Your task to perform on an android device: turn on javascript in the chrome app Image 0: 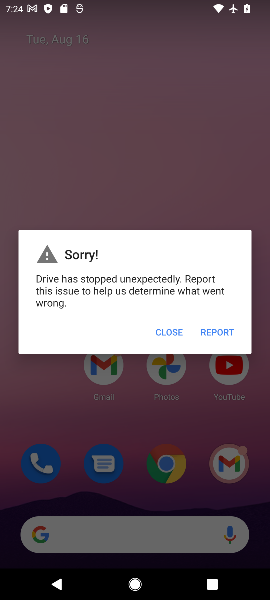
Step 0: click (168, 326)
Your task to perform on an android device: turn on javascript in the chrome app Image 1: 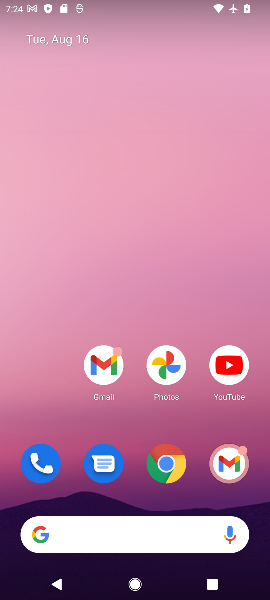
Step 1: drag from (107, 512) to (105, 12)
Your task to perform on an android device: turn on javascript in the chrome app Image 2: 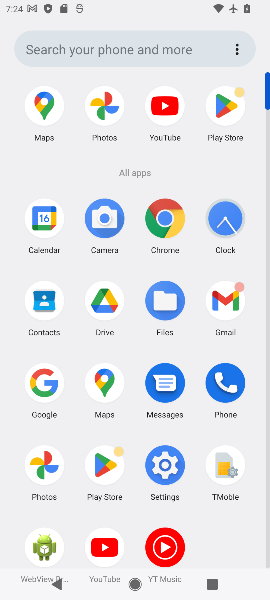
Step 2: click (160, 223)
Your task to perform on an android device: turn on javascript in the chrome app Image 3: 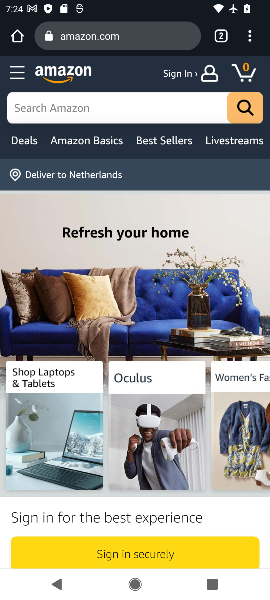
Step 3: click (250, 31)
Your task to perform on an android device: turn on javascript in the chrome app Image 4: 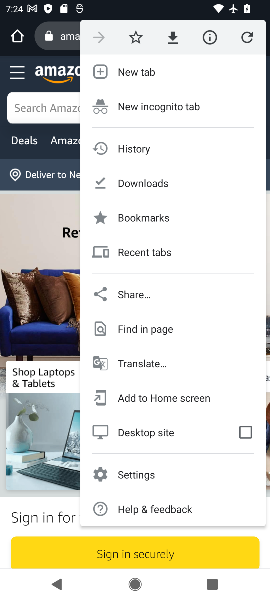
Step 4: click (137, 486)
Your task to perform on an android device: turn on javascript in the chrome app Image 5: 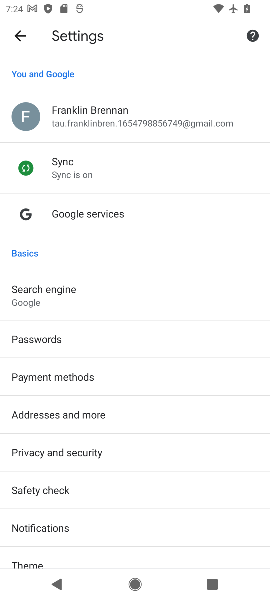
Step 5: drag from (69, 494) to (72, 226)
Your task to perform on an android device: turn on javascript in the chrome app Image 6: 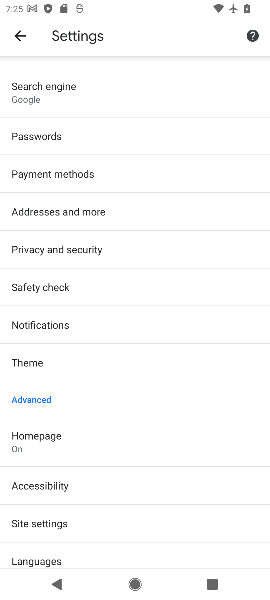
Step 6: click (48, 521)
Your task to perform on an android device: turn on javascript in the chrome app Image 7: 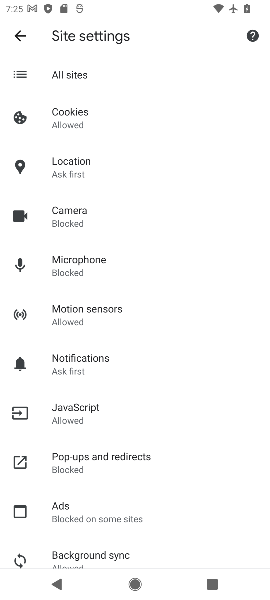
Step 7: click (80, 410)
Your task to perform on an android device: turn on javascript in the chrome app Image 8: 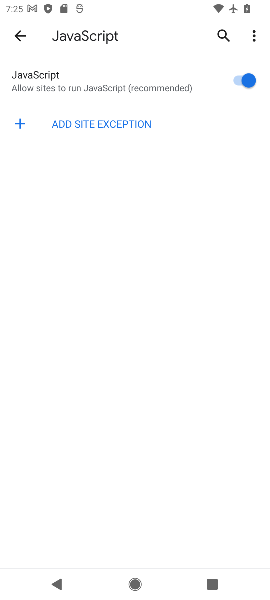
Step 8: task complete